Your task to perform on an android device: Open wifi settings Image 0: 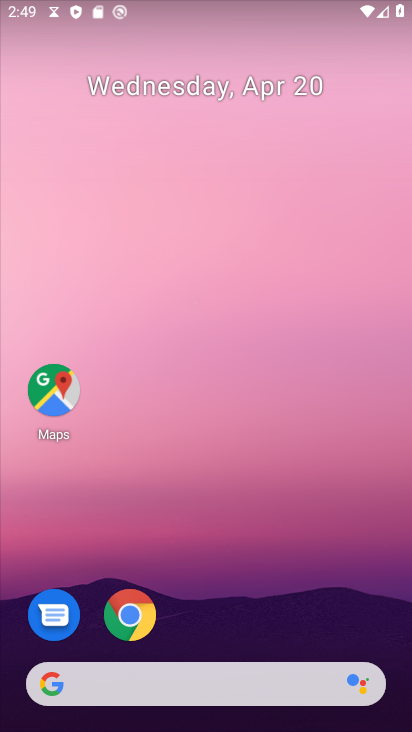
Step 0: drag from (187, 633) to (267, 37)
Your task to perform on an android device: Open wifi settings Image 1: 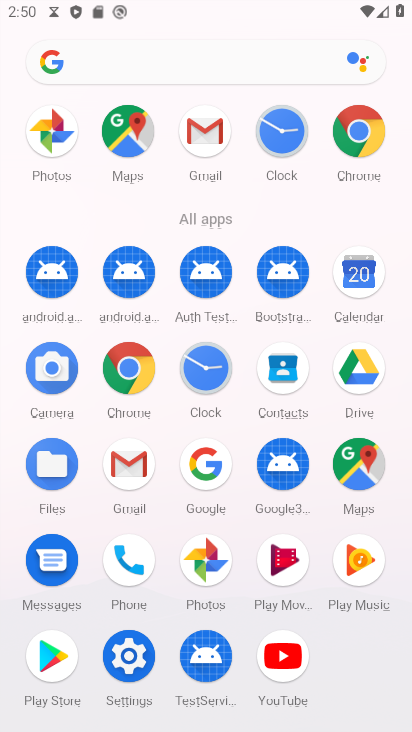
Step 1: click (127, 651)
Your task to perform on an android device: Open wifi settings Image 2: 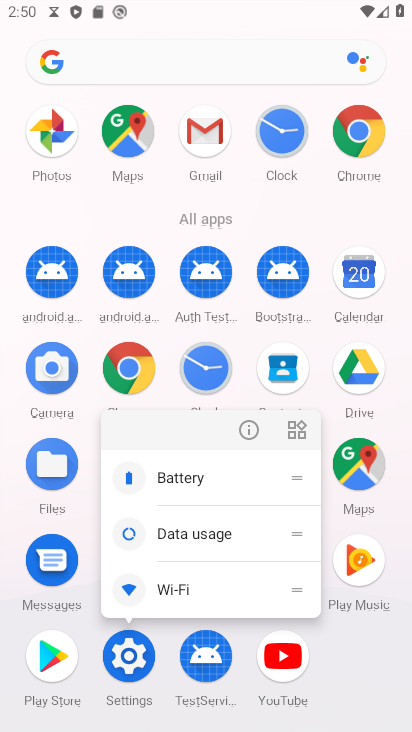
Step 2: click (251, 427)
Your task to perform on an android device: Open wifi settings Image 3: 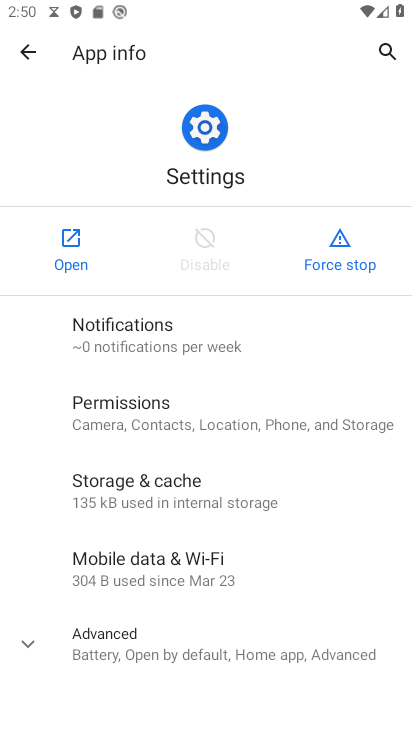
Step 3: click (74, 241)
Your task to perform on an android device: Open wifi settings Image 4: 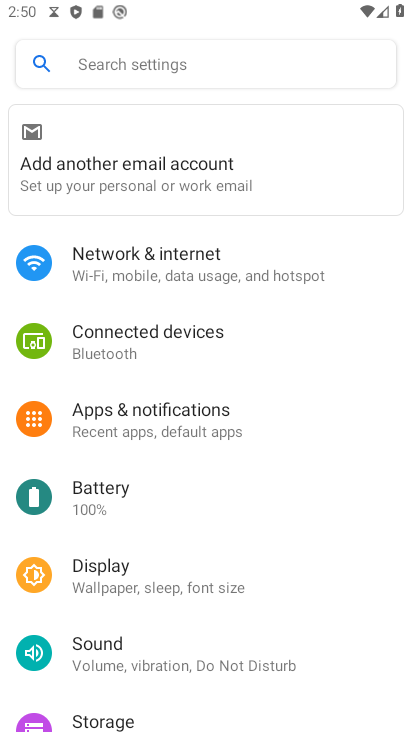
Step 4: click (117, 267)
Your task to perform on an android device: Open wifi settings Image 5: 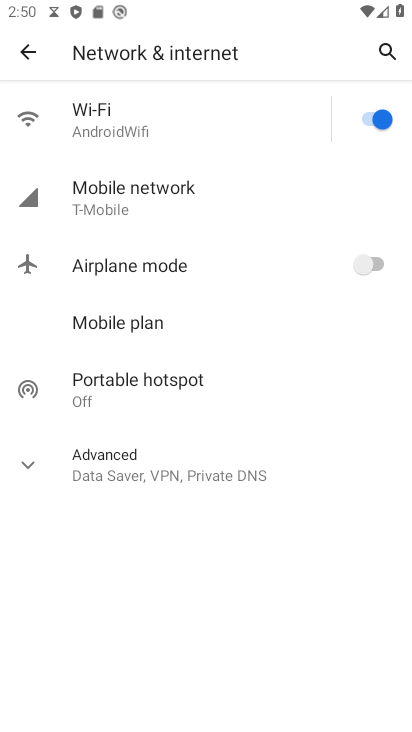
Step 5: click (214, 123)
Your task to perform on an android device: Open wifi settings Image 6: 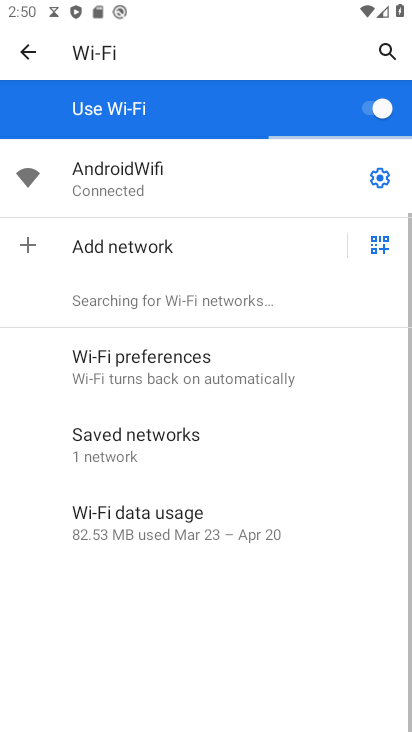
Step 6: click (382, 180)
Your task to perform on an android device: Open wifi settings Image 7: 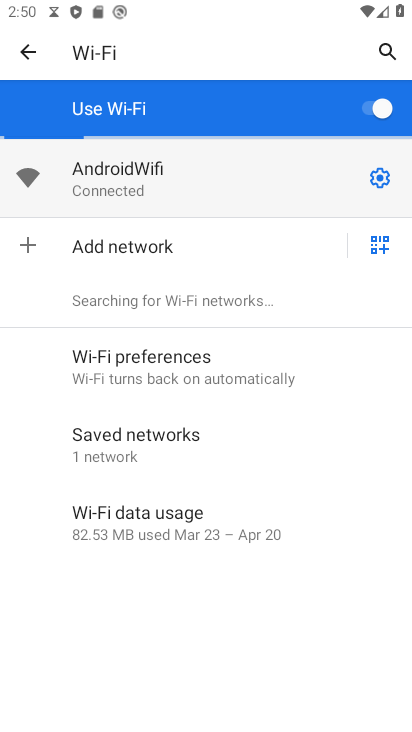
Step 7: task complete